Your task to perform on an android device: Go to notification settings Image 0: 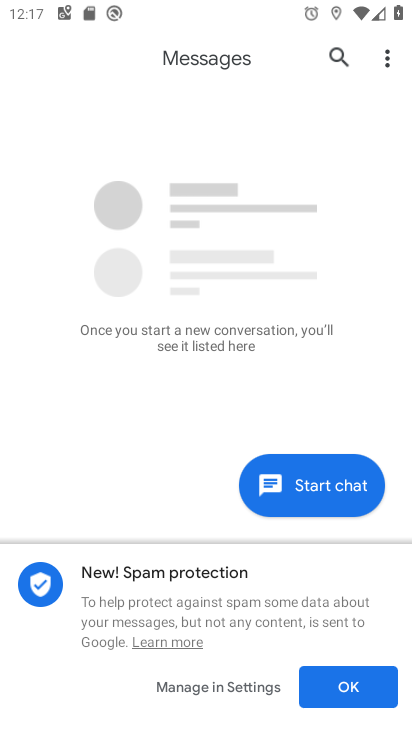
Step 0: press home button
Your task to perform on an android device: Go to notification settings Image 1: 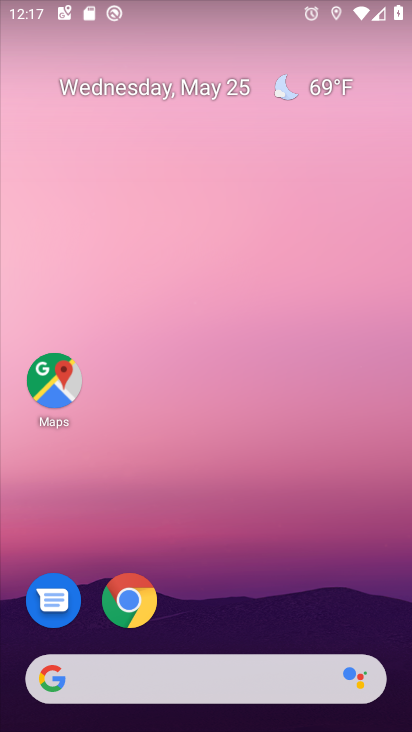
Step 1: drag from (360, 619) to (373, 220)
Your task to perform on an android device: Go to notification settings Image 2: 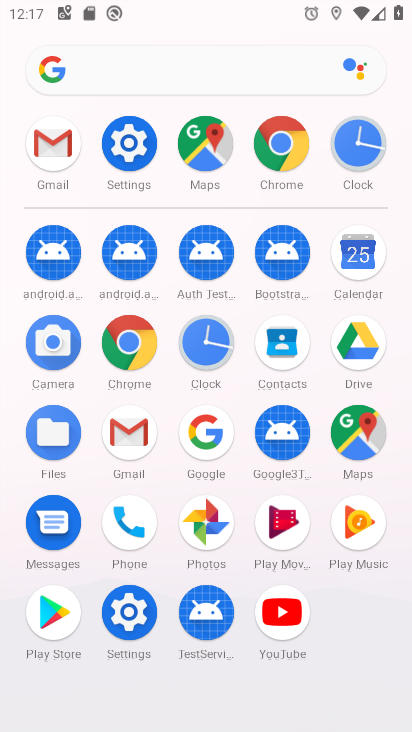
Step 2: click (144, 609)
Your task to perform on an android device: Go to notification settings Image 3: 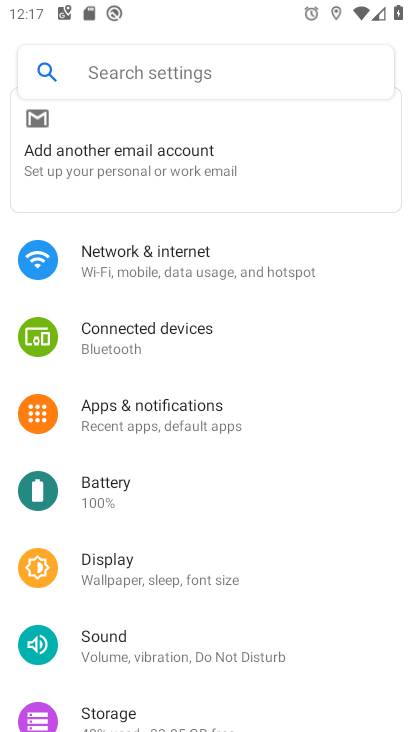
Step 3: drag from (352, 537) to (363, 426)
Your task to perform on an android device: Go to notification settings Image 4: 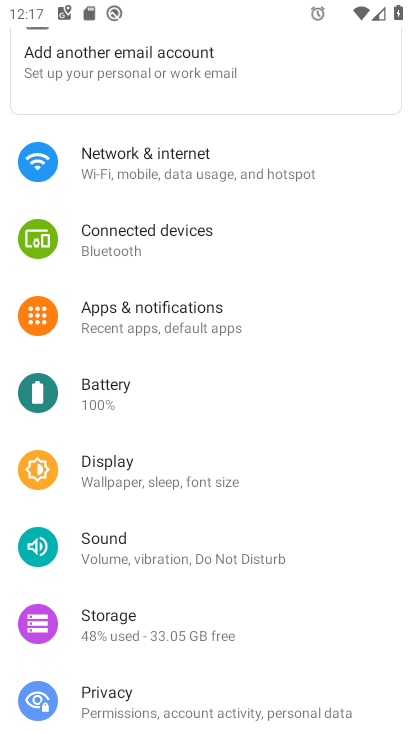
Step 4: drag from (366, 627) to (357, 510)
Your task to perform on an android device: Go to notification settings Image 5: 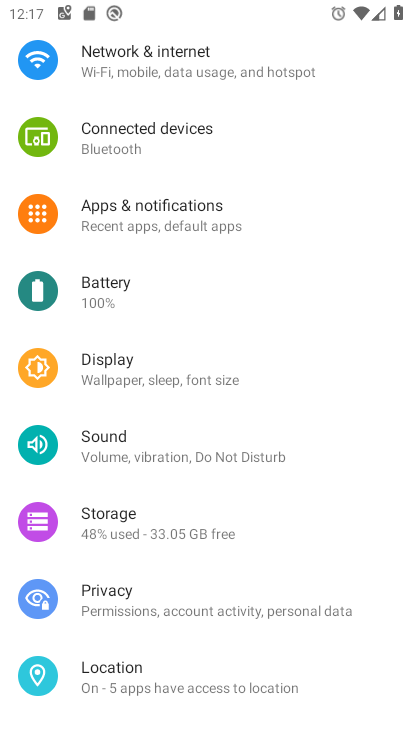
Step 5: drag from (355, 662) to (355, 509)
Your task to perform on an android device: Go to notification settings Image 6: 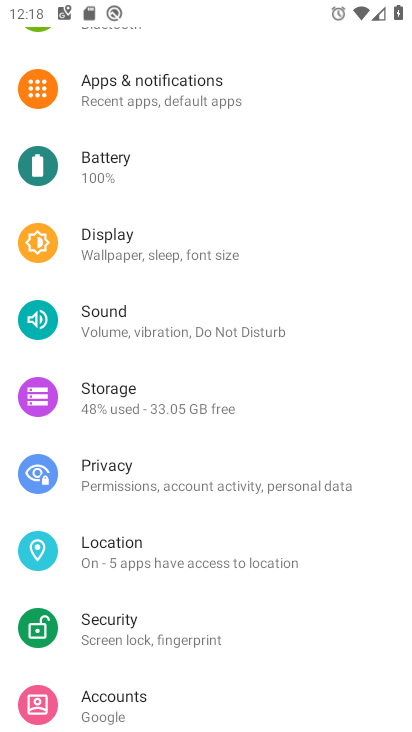
Step 6: drag from (366, 644) to (381, 536)
Your task to perform on an android device: Go to notification settings Image 7: 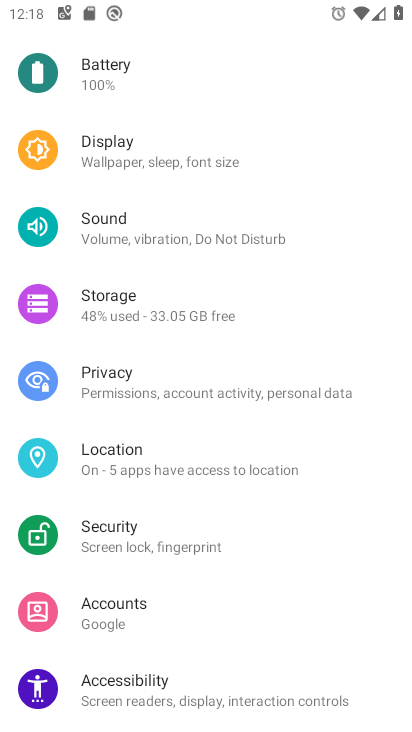
Step 7: drag from (349, 628) to (343, 413)
Your task to perform on an android device: Go to notification settings Image 8: 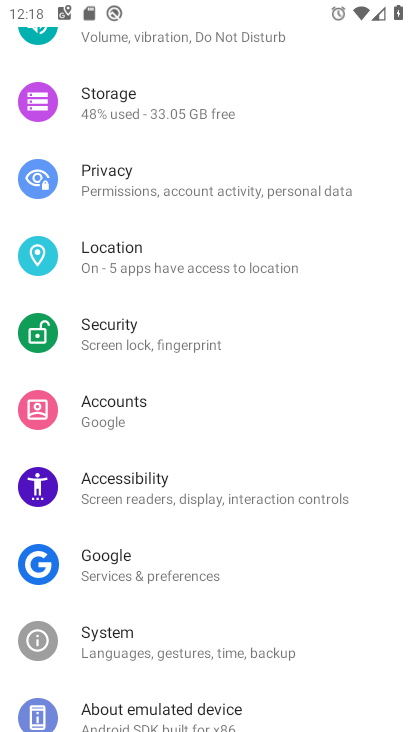
Step 8: drag from (345, 556) to (351, 398)
Your task to perform on an android device: Go to notification settings Image 9: 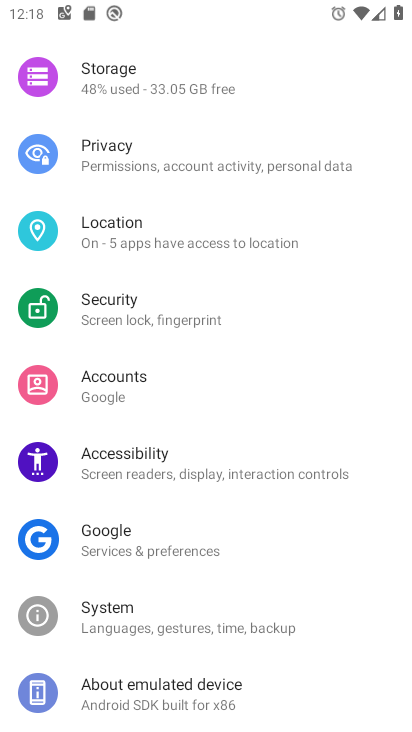
Step 9: drag from (361, 321) to (366, 458)
Your task to perform on an android device: Go to notification settings Image 10: 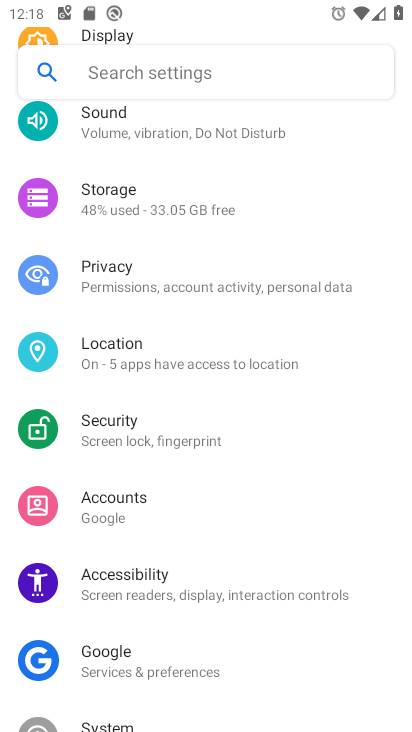
Step 10: drag from (375, 317) to (376, 438)
Your task to perform on an android device: Go to notification settings Image 11: 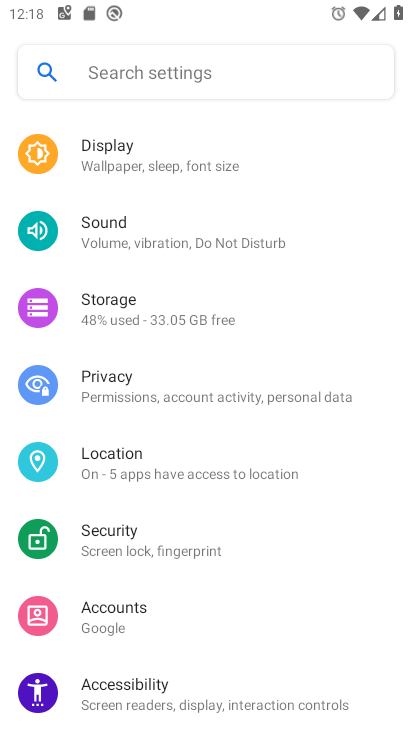
Step 11: drag from (362, 238) to (362, 358)
Your task to perform on an android device: Go to notification settings Image 12: 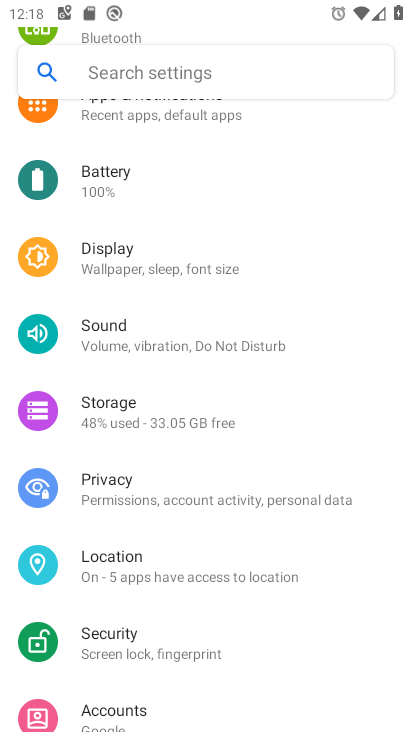
Step 12: drag from (371, 227) to (358, 317)
Your task to perform on an android device: Go to notification settings Image 13: 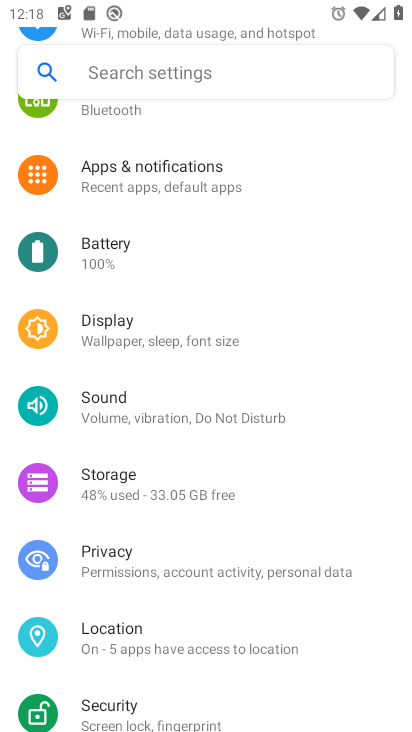
Step 13: drag from (340, 246) to (335, 379)
Your task to perform on an android device: Go to notification settings Image 14: 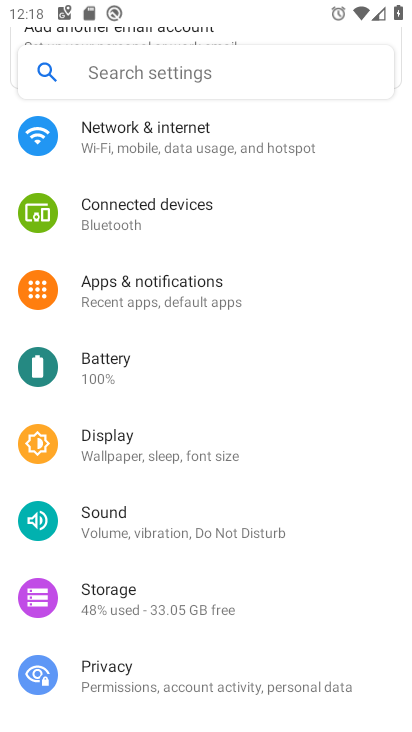
Step 14: click (316, 275)
Your task to perform on an android device: Go to notification settings Image 15: 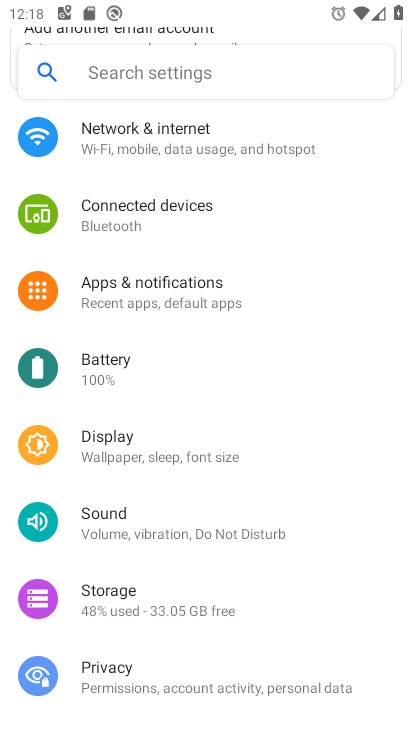
Step 15: click (246, 311)
Your task to perform on an android device: Go to notification settings Image 16: 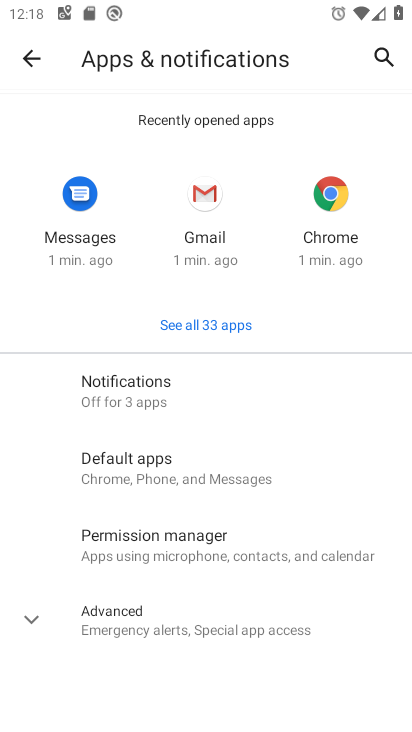
Step 16: click (143, 390)
Your task to perform on an android device: Go to notification settings Image 17: 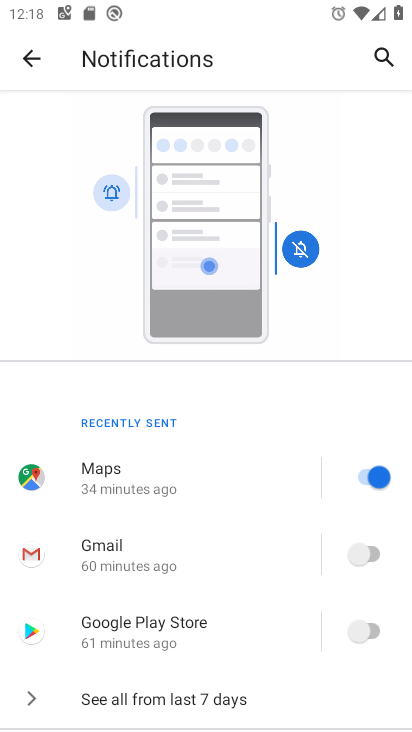
Step 17: task complete